Your task to perform on an android device: Open Wikipedia Image 0: 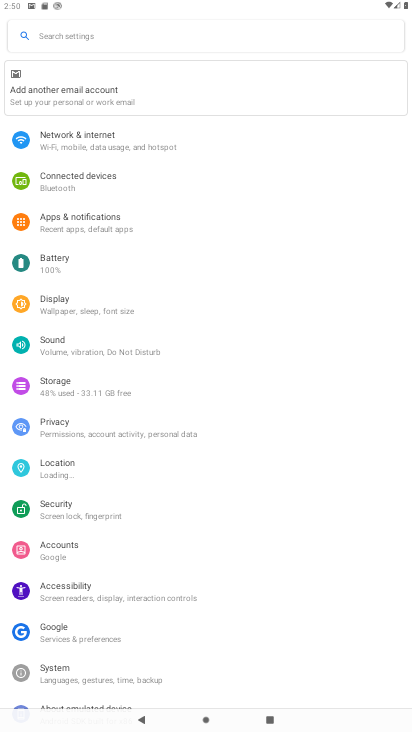
Step 0: press home button
Your task to perform on an android device: Open Wikipedia Image 1: 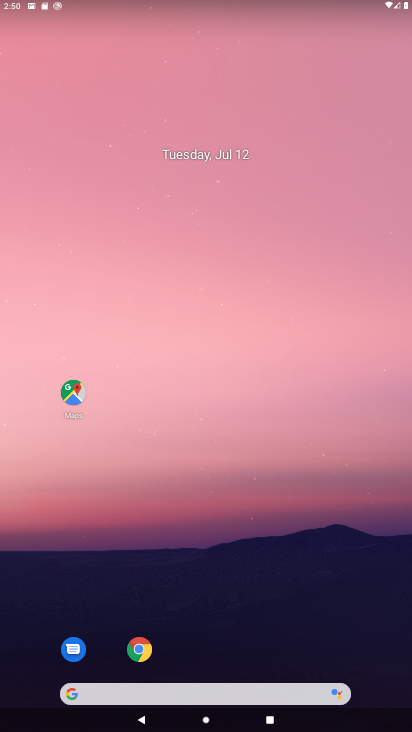
Step 1: click (141, 649)
Your task to perform on an android device: Open Wikipedia Image 2: 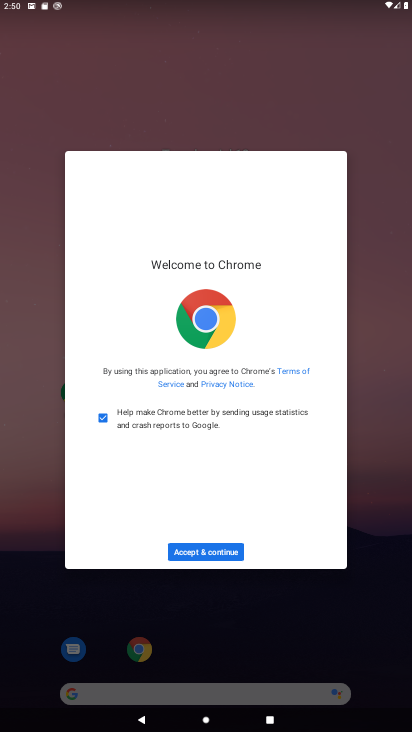
Step 2: click (198, 553)
Your task to perform on an android device: Open Wikipedia Image 3: 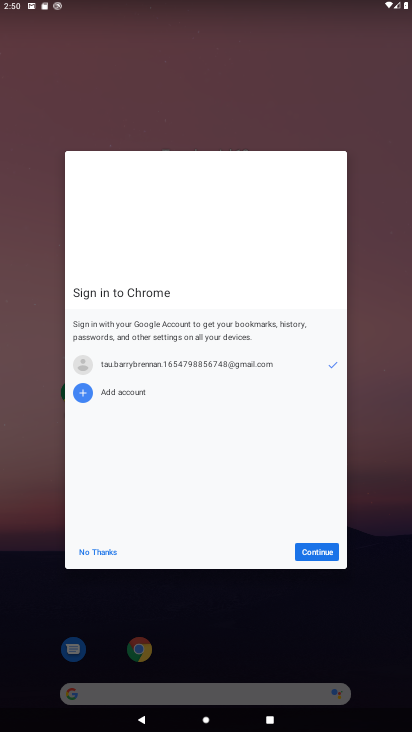
Step 3: click (305, 557)
Your task to perform on an android device: Open Wikipedia Image 4: 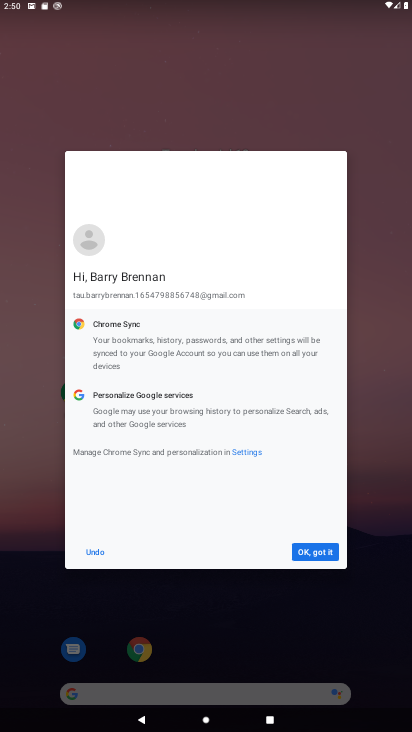
Step 4: click (305, 557)
Your task to perform on an android device: Open Wikipedia Image 5: 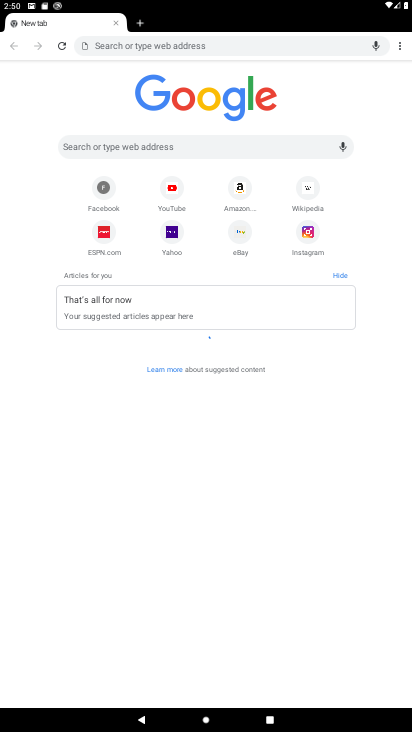
Step 5: click (301, 196)
Your task to perform on an android device: Open Wikipedia Image 6: 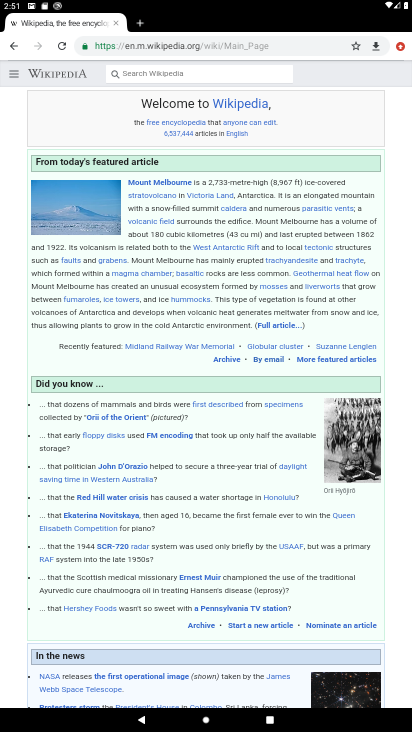
Step 6: task complete